Your task to perform on an android device: move a message to another label in the gmail app Image 0: 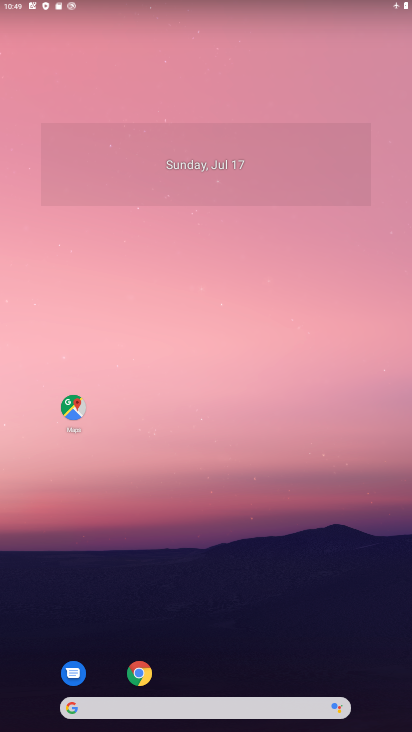
Step 0: drag from (220, 671) to (207, 216)
Your task to perform on an android device: move a message to another label in the gmail app Image 1: 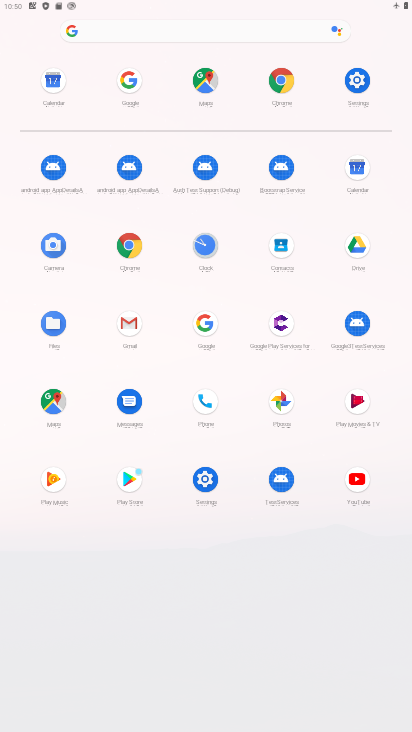
Step 1: click (128, 324)
Your task to perform on an android device: move a message to another label in the gmail app Image 2: 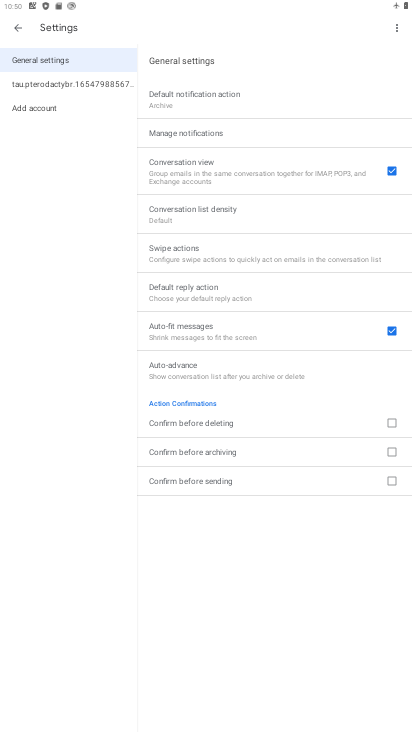
Step 2: click (56, 60)
Your task to perform on an android device: move a message to another label in the gmail app Image 3: 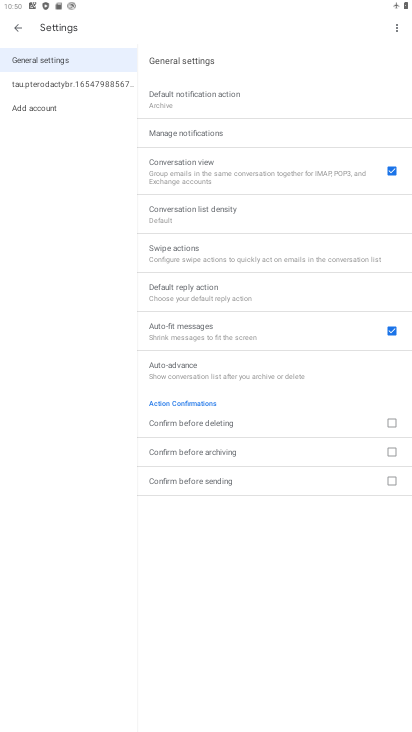
Step 3: task complete